Your task to perform on an android device: Open the web browser Image 0: 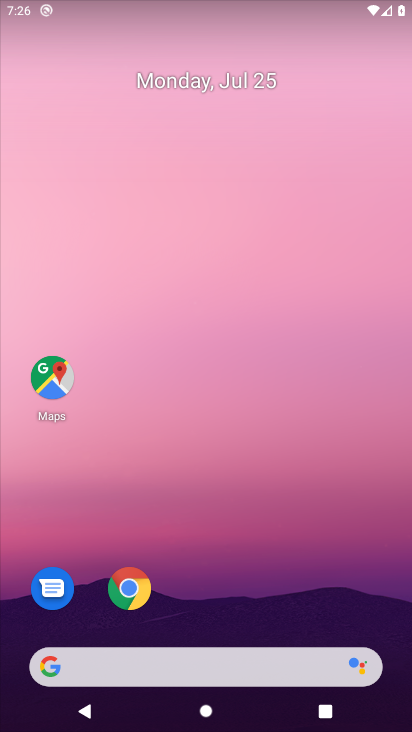
Step 0: drag from (250, 592) to (217, 329)
Your task to perform on an android device: Open the web browser Image 1: 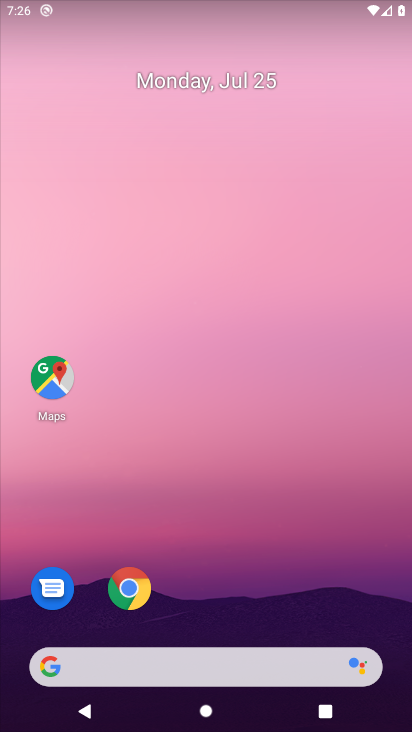
Step 1: click (136, 592)
Your task to perform on an android device: Open the web browser Image 2: 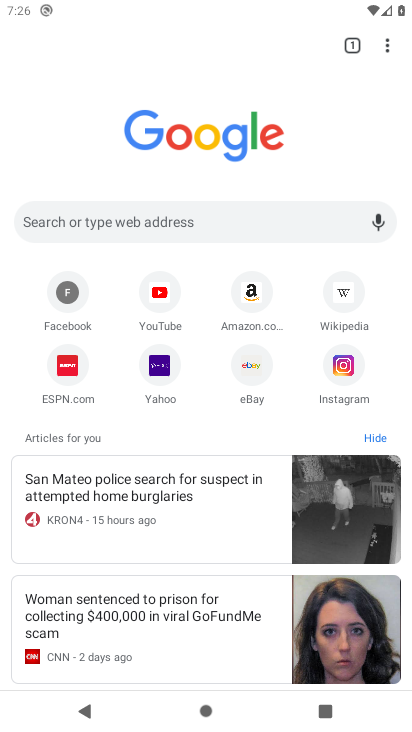
Step 2: task complete